Your task to perform on an android device: check data usage Image 0: 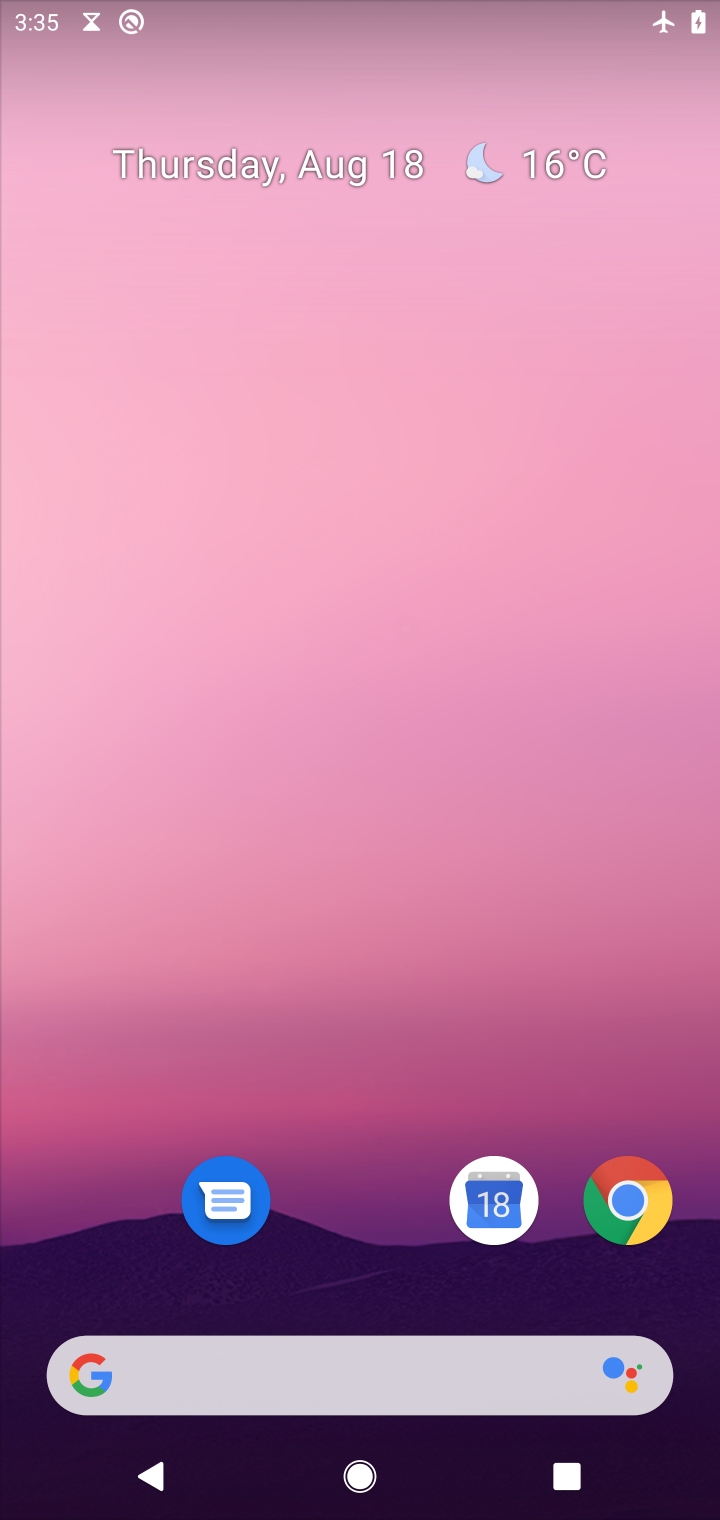
Step 0: drag from (565, 11) to (707, 135)
Your task to perform on an android device: check data usage Image 1: 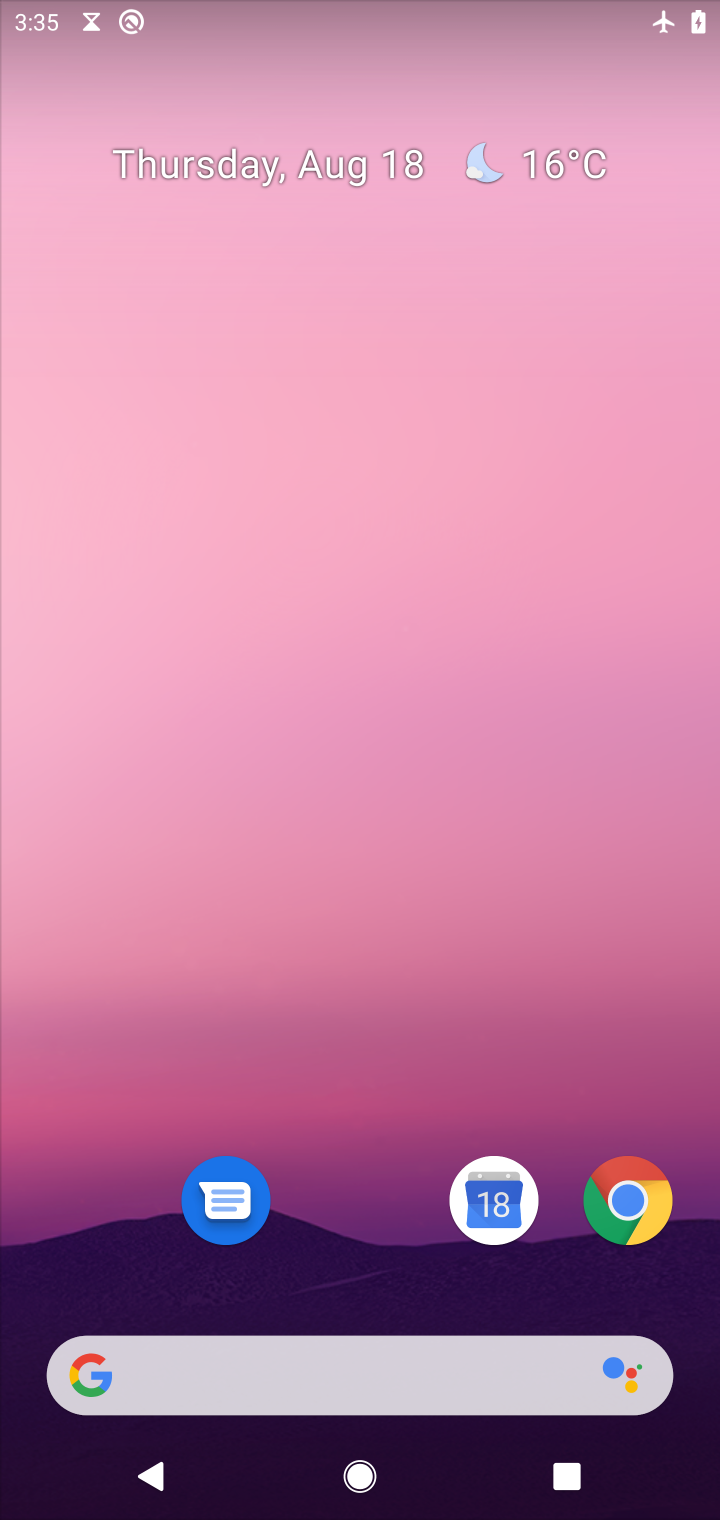
Step 1: task complete